Your task to perform on an android device: toggle javascript in the chrome app Image 0: 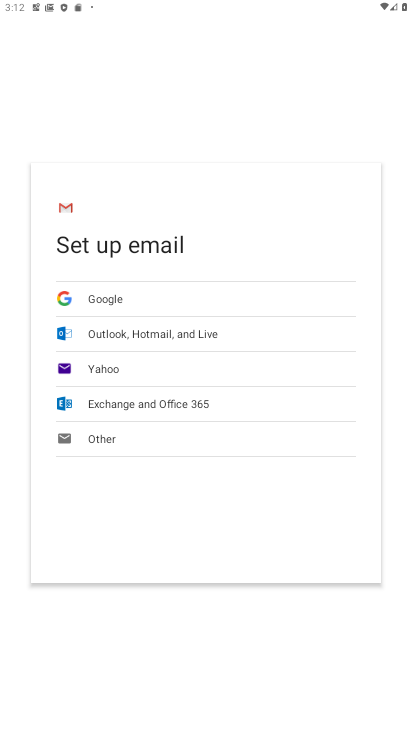
Step 0: press home button
Your task to perform on an android device: toggle javascript in the chrome app Image 1: 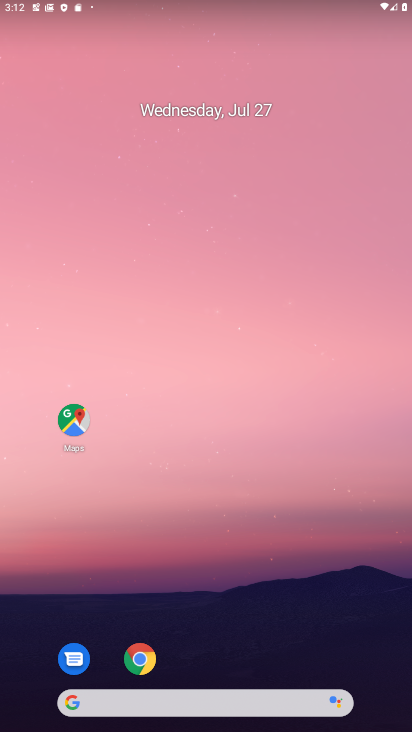
Step 1: click (133, 656)
Your task to perform on an android device: toggle javascript in the chrome app Image 2: 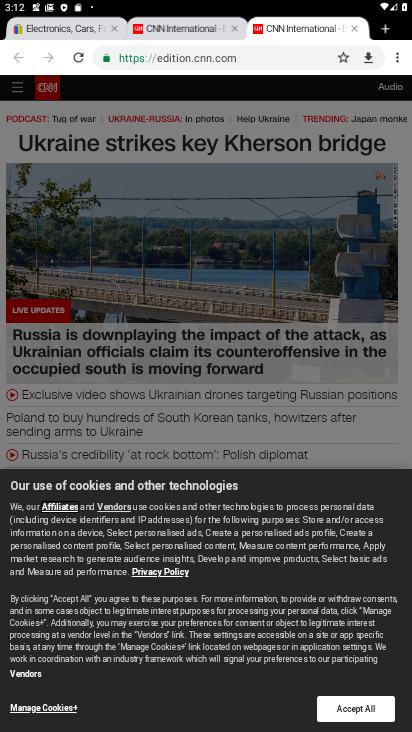
Step 2: click (391, 55)
Your task to perform on an android device: toggle javascript in the chrome app Image 3: 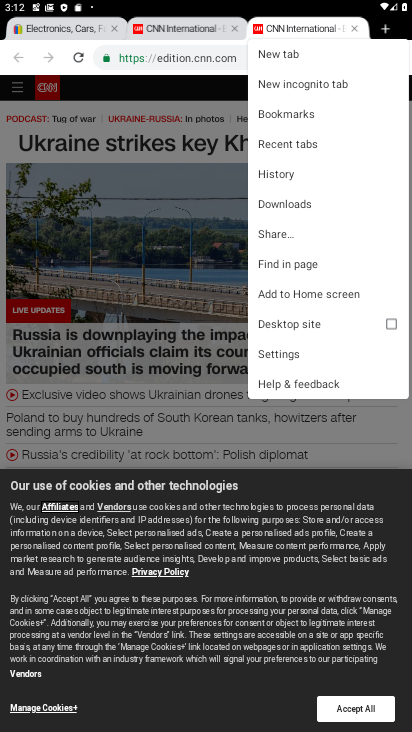
Step 3: click (293, 350)
Your task to perform on an android device: toggle javascript in the chrome app Image 4: 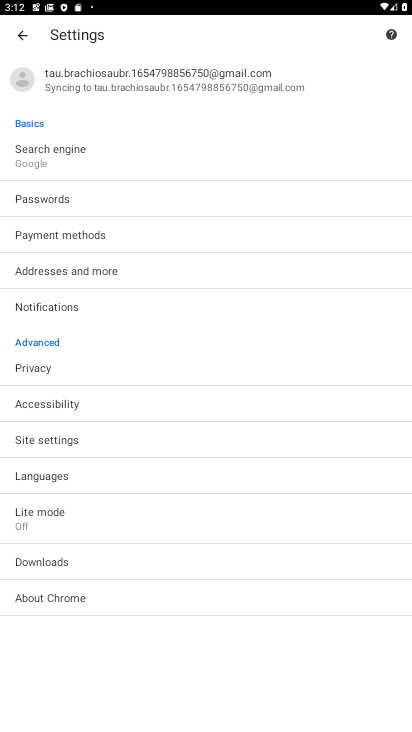
Step 4: click (55, 433)
Your task to perform on an android device: toggle javascript in the chrome app Image 5: 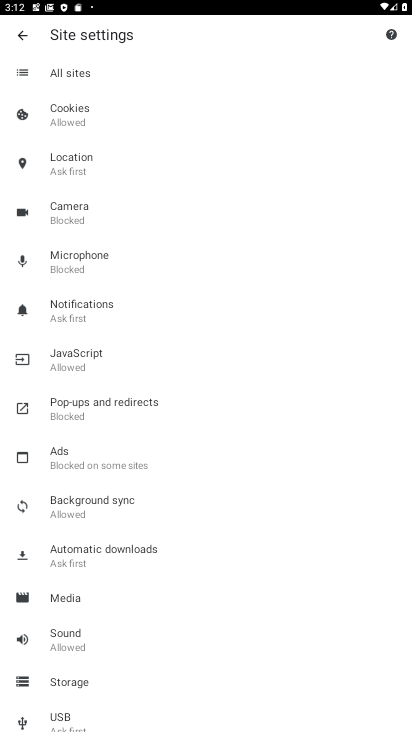
Step 5: click (93, 343)
Your task to perform on an android device: toggle javascript in the chrome app Image 6: 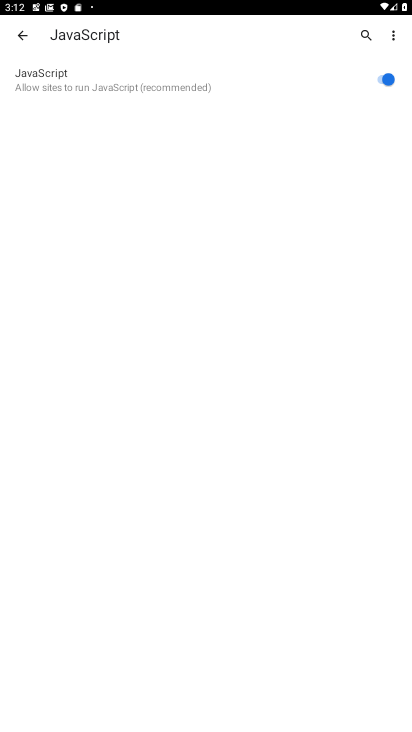
Step 6: click (387, 79)
Your task to perform on an android device: toggle javascript in the chrome app Image 7: 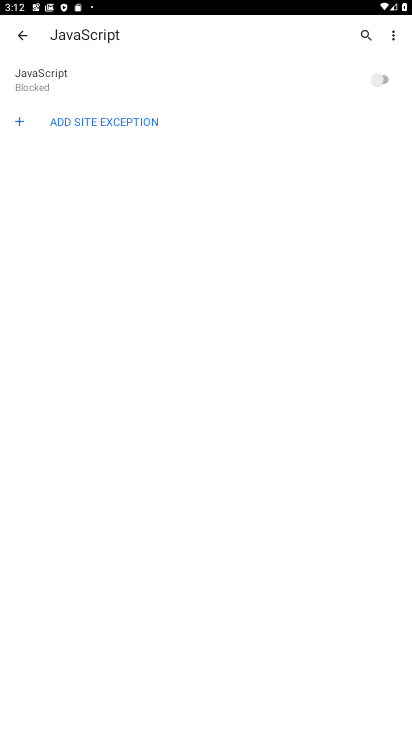
Step 7: task complete